Your task to perform on an android device: change notifications settings Image 0: 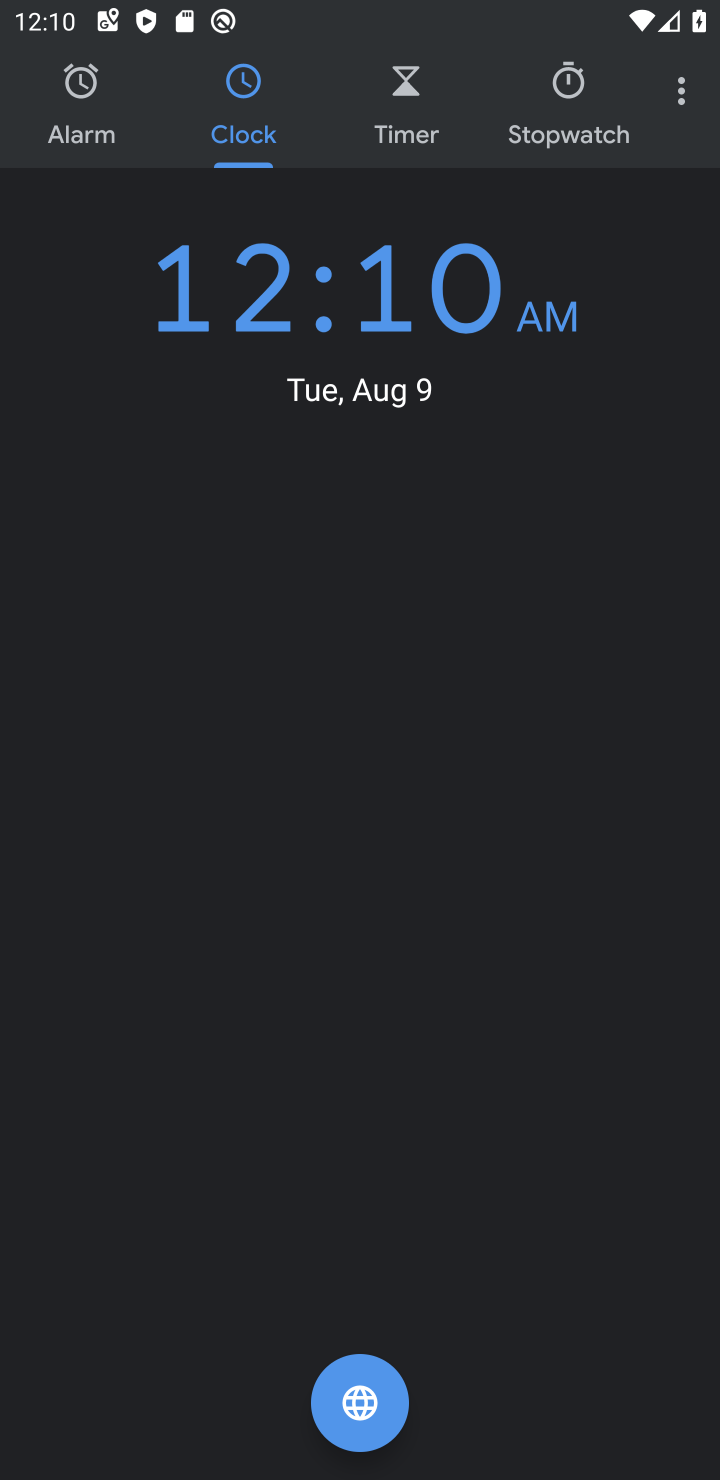
Step 0: press home button
Your task to perform on an android device: change notifications settings Image 1: 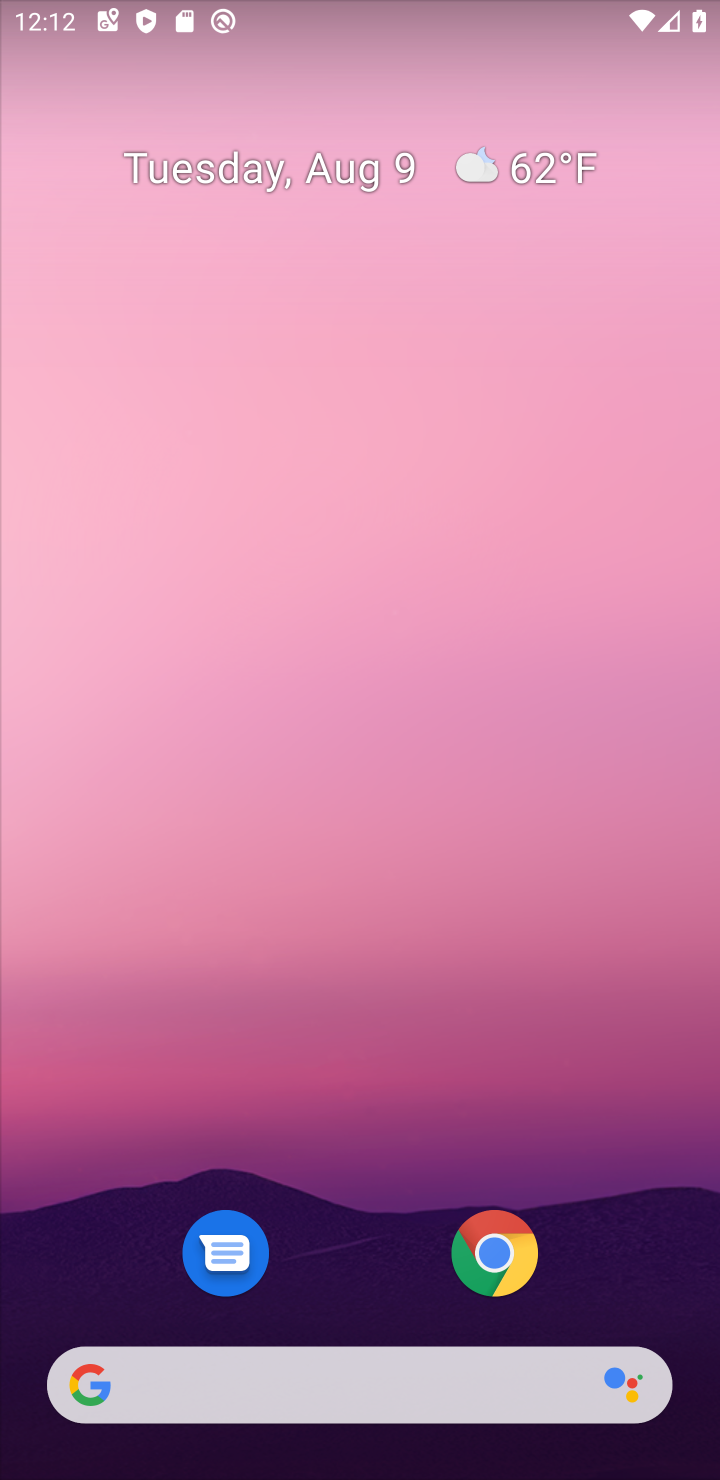
Step 1: drag from (639, 1222) to (399, 86)
Your task to perform on an android device: change notifications settings Image 2: 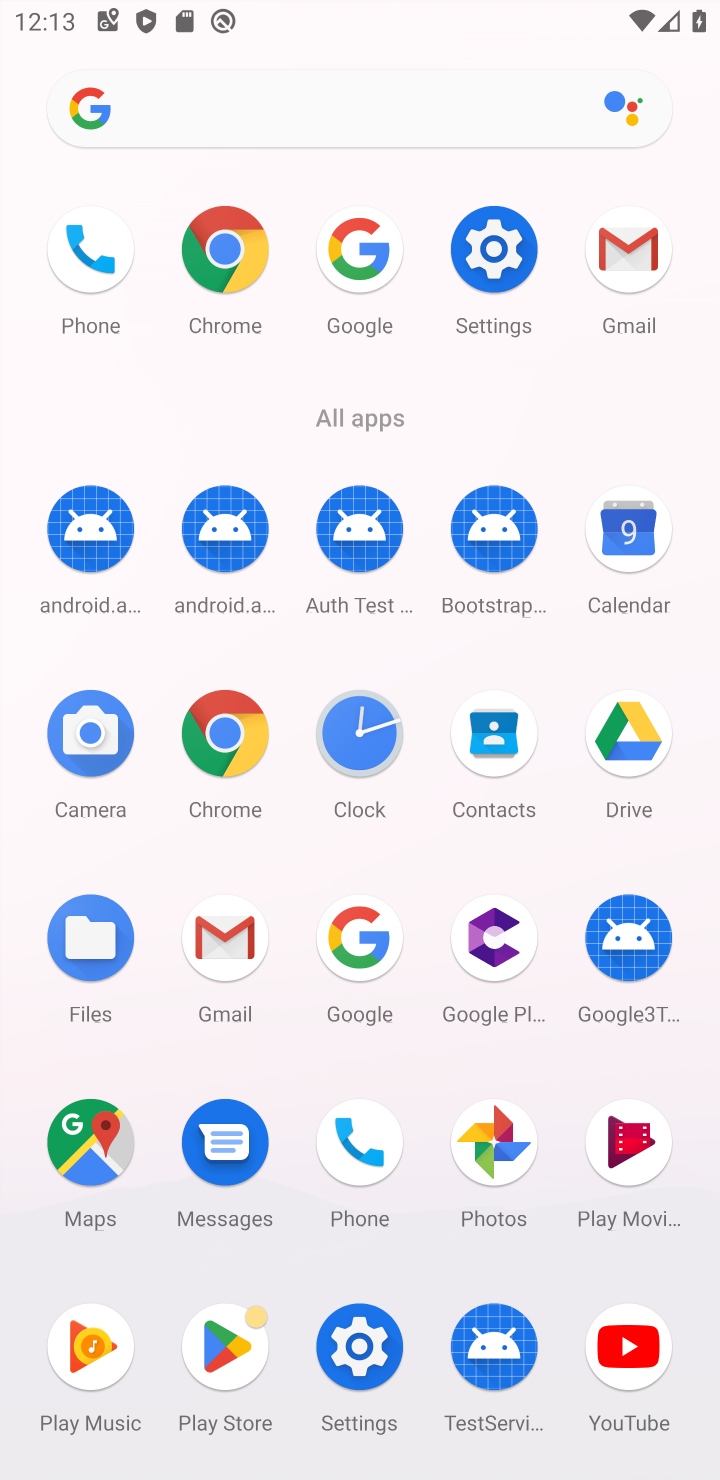
Step 2: click (333, 1328)
Your task to perform on an android device: change notifications settings Image 3: 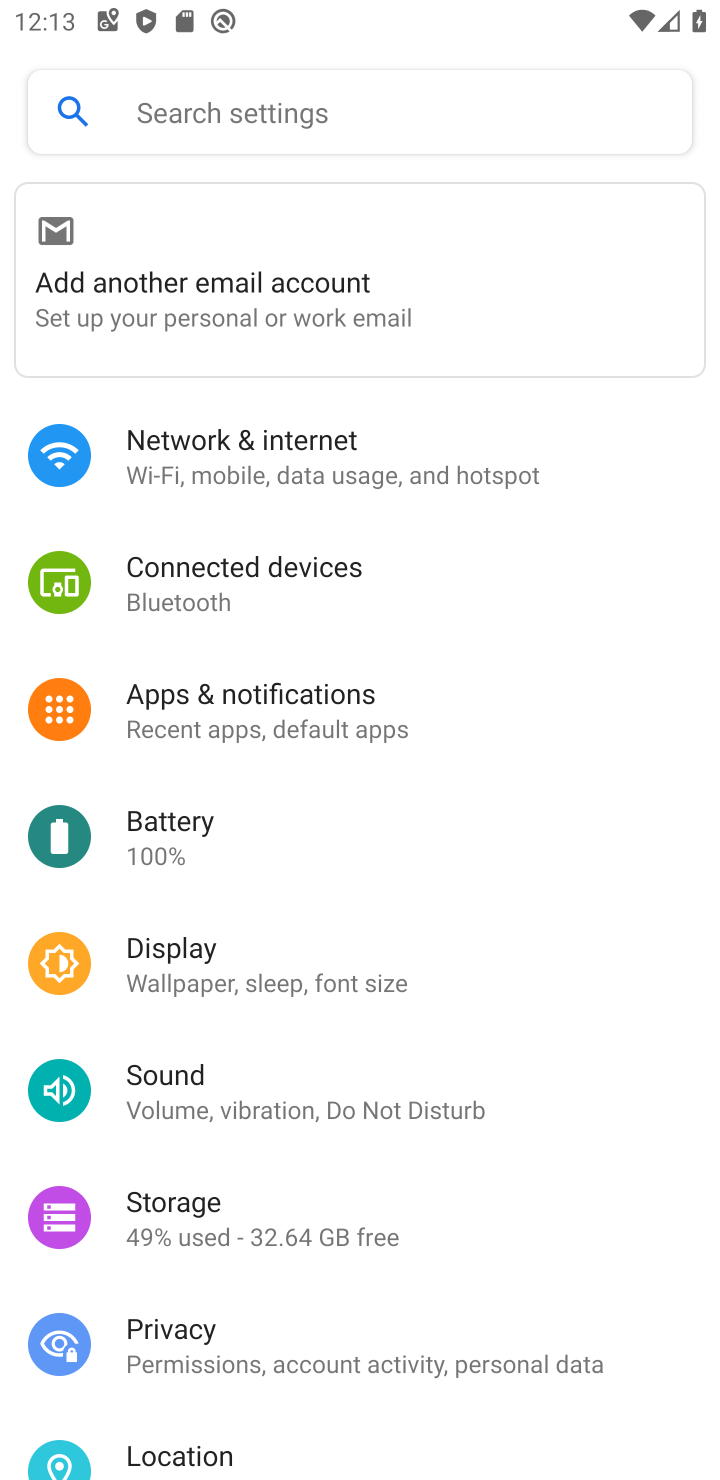
Step 3: click (356, 739)
Your task to perform on an android device: change notifications settings Image 4: 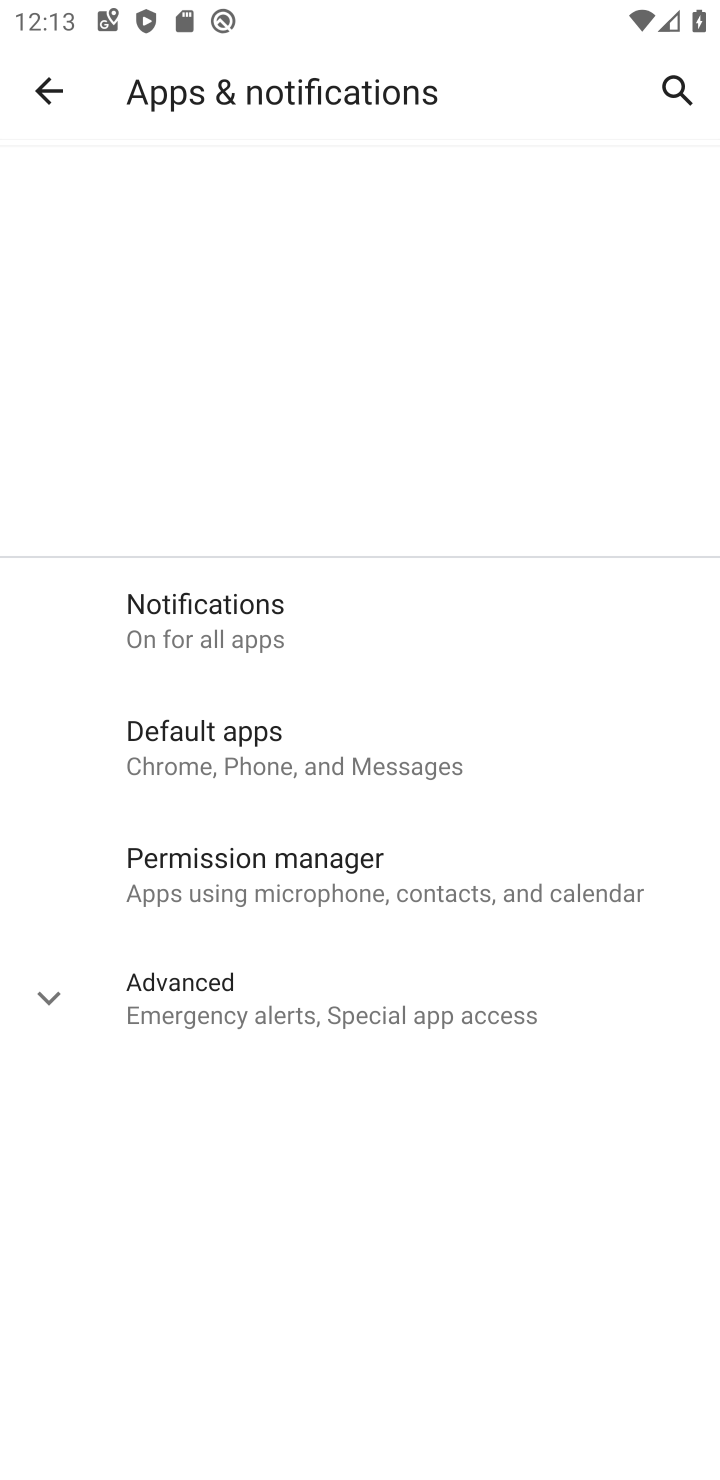
Step 4: click (208, 623)
Your task to perform on an android device: change notifications settings Image 5: 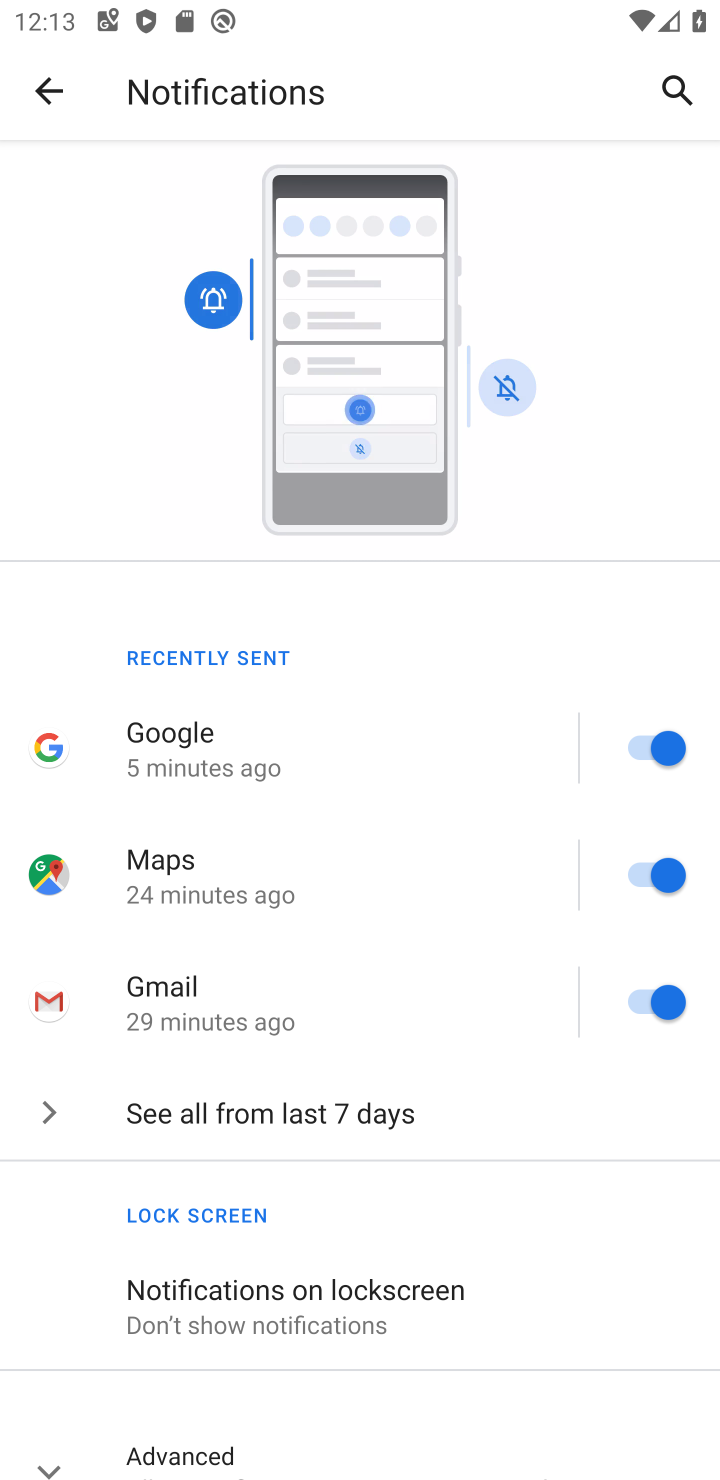
Step 5: task complete